Your task to perform on an android device: Open settings Image 0: 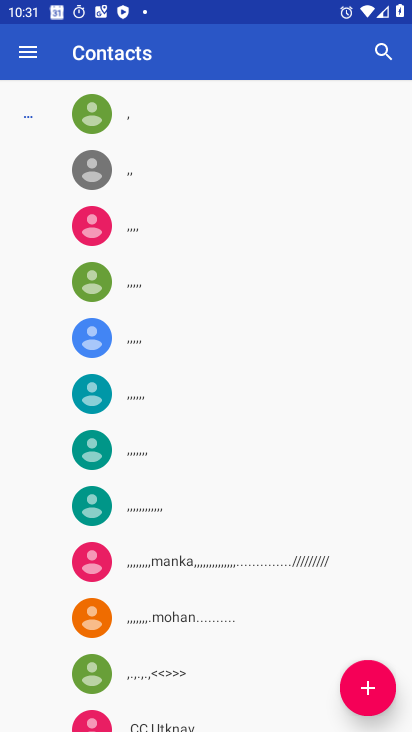
Step 0: press home button
Your task to perform on an android device: Open settings Image 1: 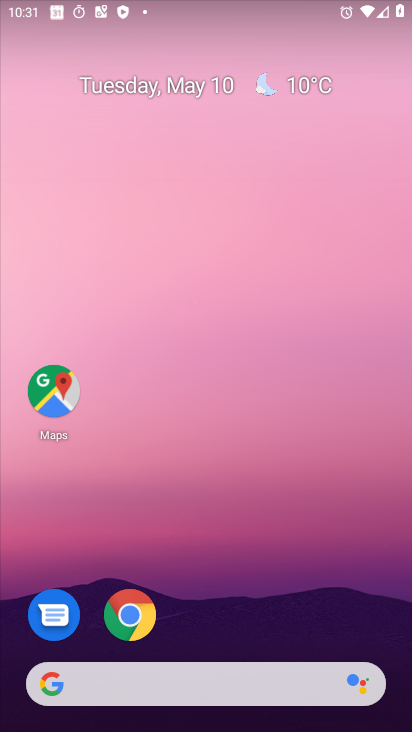
Step 1: drag from (220, 587) to (252, 0)
Your task to perform on an android device: Open settings Image 2: 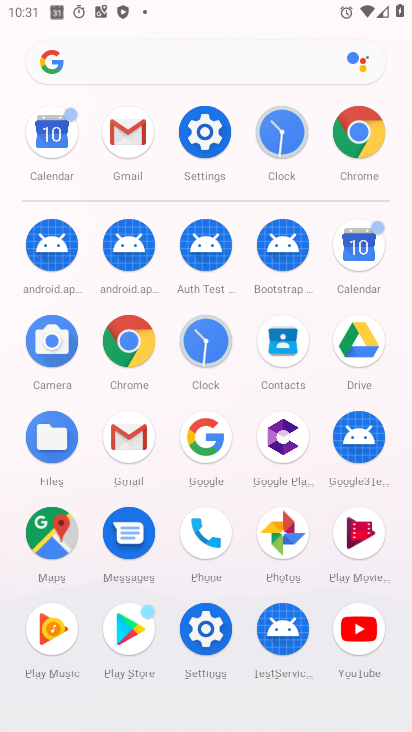
Step 2: click (206, 124)
Your task to perform on an android device: Open settings Image 3: 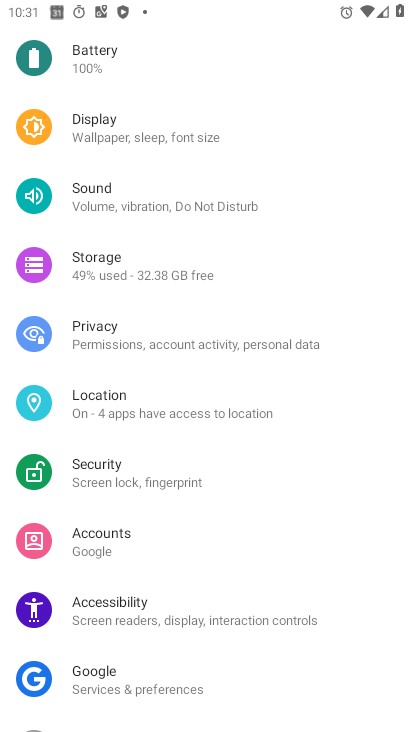
Step 3: task complete